Your task to perform on an android device: Toggle the flashlight Image 0: 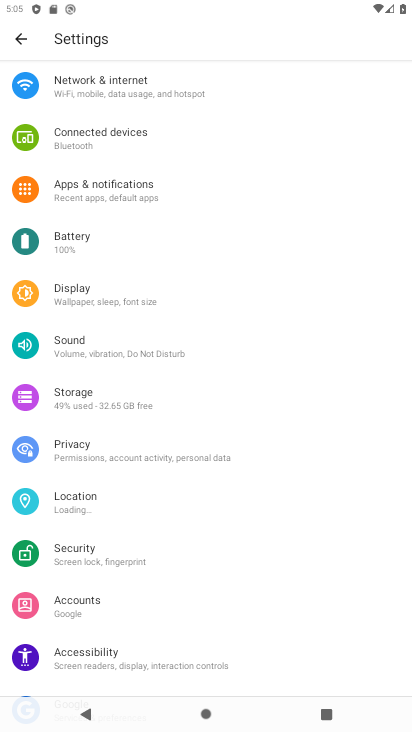
Step 0: press home button
Your task to perform on an android device: Toggle the flashlight Image 1: 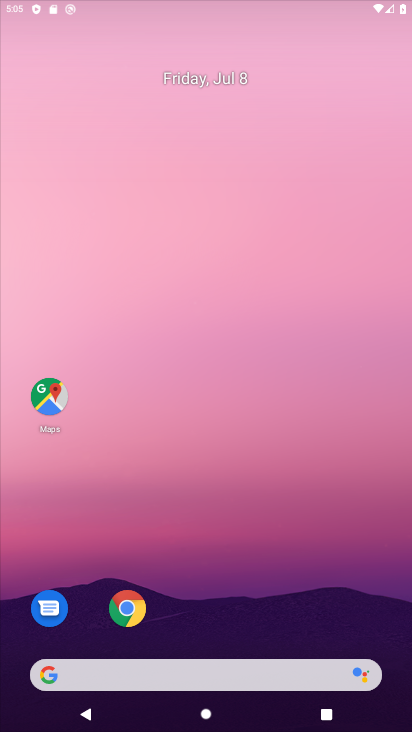
Step 1: task complete